Your task to perform on an android device: stop showing notifications on the lock screen Image 0: 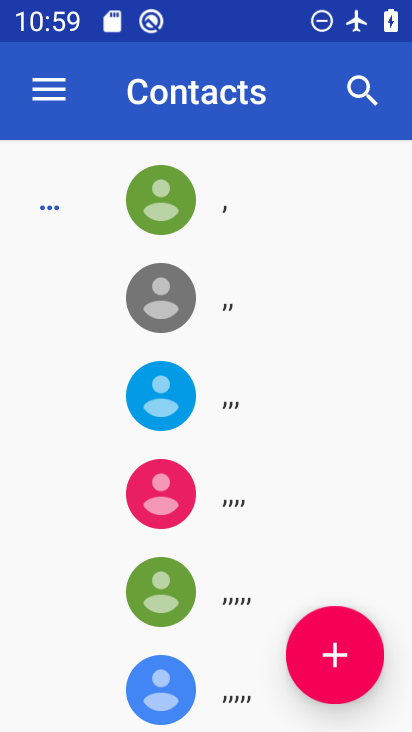
Step 0: press home button
Your task to perform on an android device: stop showing notifications on the lock screen Image 1: 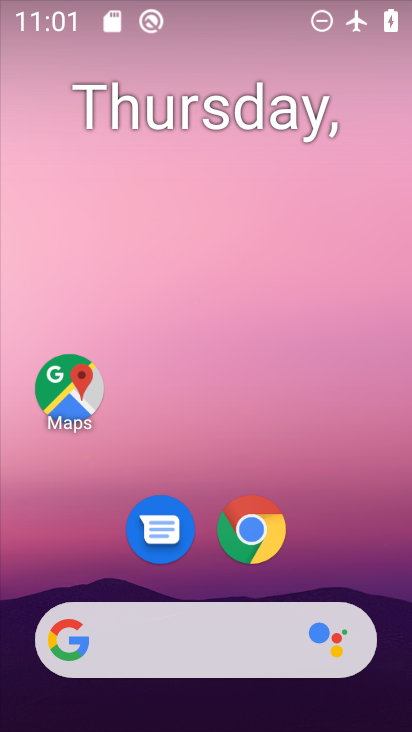
Step 1: drag from (90, 610) to (223, 30)
Your task to perform on an android device: stop showing notifications on the lock screen Image 2: 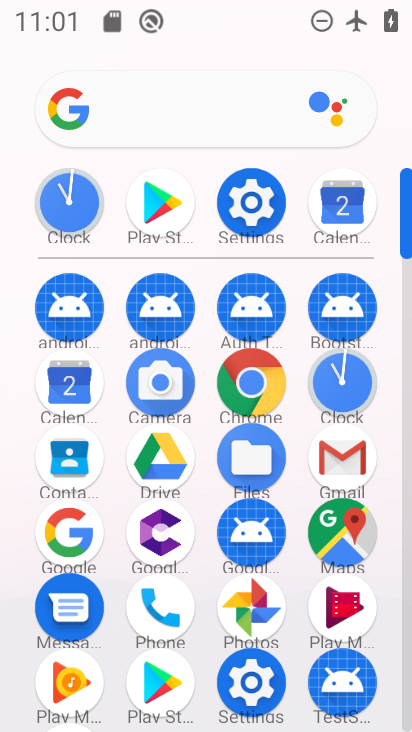
Step 2: click (240, 193)
Your task to perform on an android device: stop showing notifications on the lock screen Image 3: 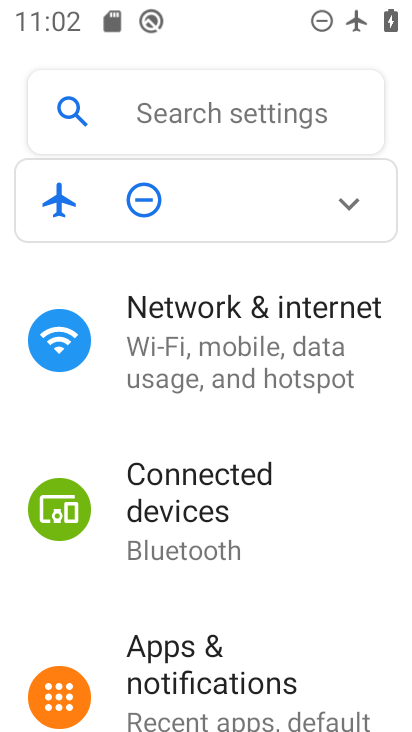
Step 3: click (235, 707)
Your task to perform on an android device: stop showing notifications on the lock screen Image 4: 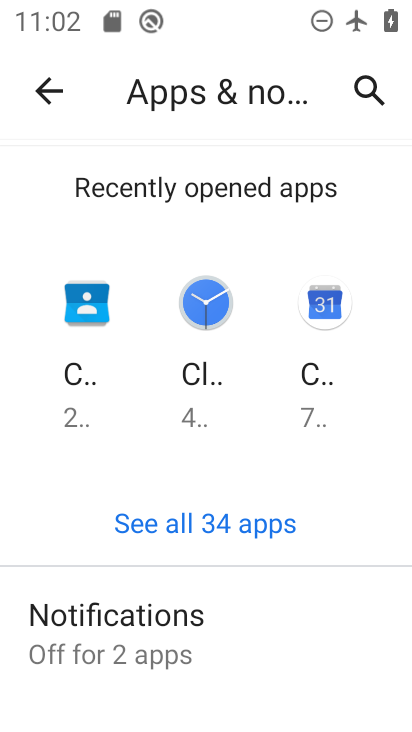
Step 4: click (176, 645)
Your task to perform on an android device: stop showing notifications on the lock screen Image 5: 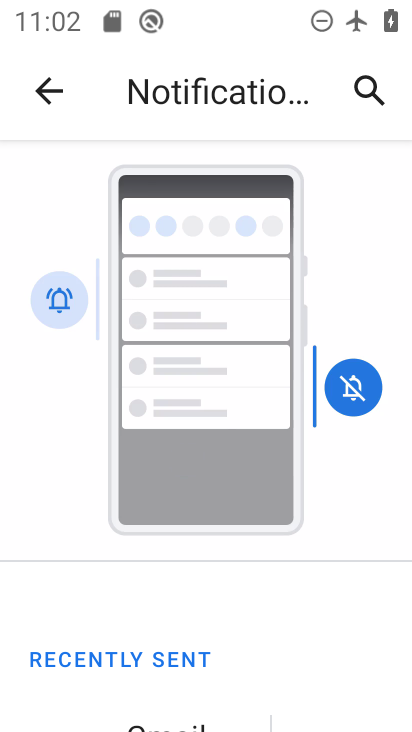
Step 5: drag from (226, 653) to (214, 170)
Your task to perform on an android device: stop showing notifications on the lock screen Image 6: 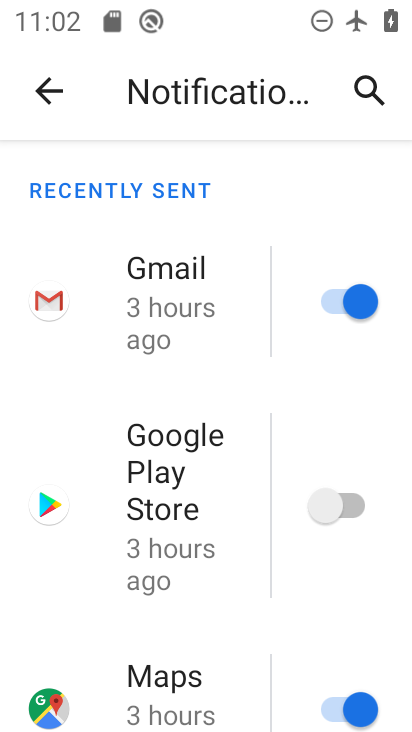
Step 6: drag from (245, 660) to (259, 232)
Your task to perform on an android device: stop showing notifications on the lock screen Image 7: 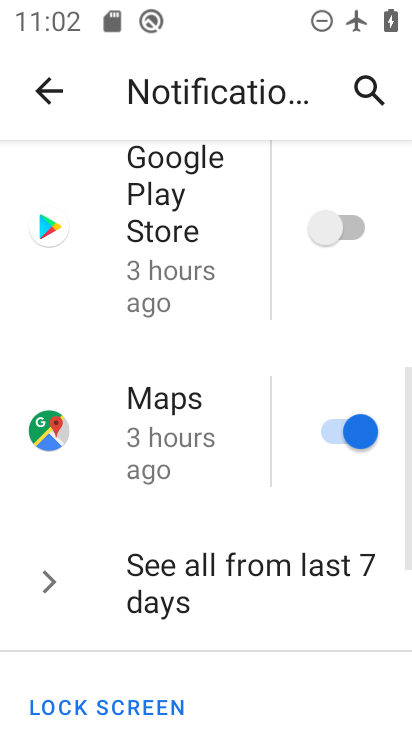
Step 7: drag from (214, 627) to (221, 187)
Your task to perform on an android device: stop showing notifications on the lock screen Image 8: 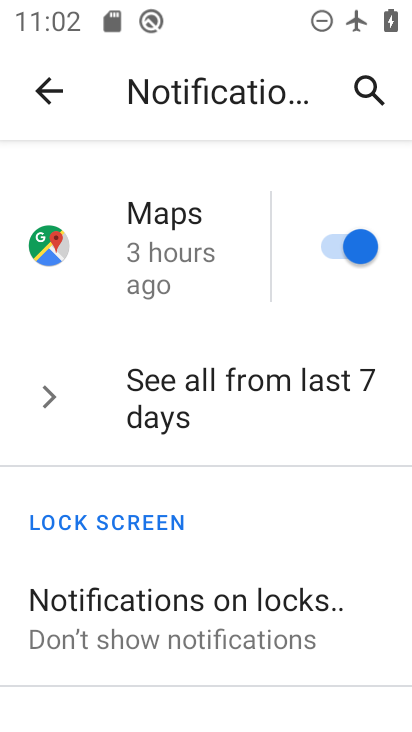
Step 8: click (189, 630)
Your task to perform on an android device: stop showing notifications on the lock screen Image 9: 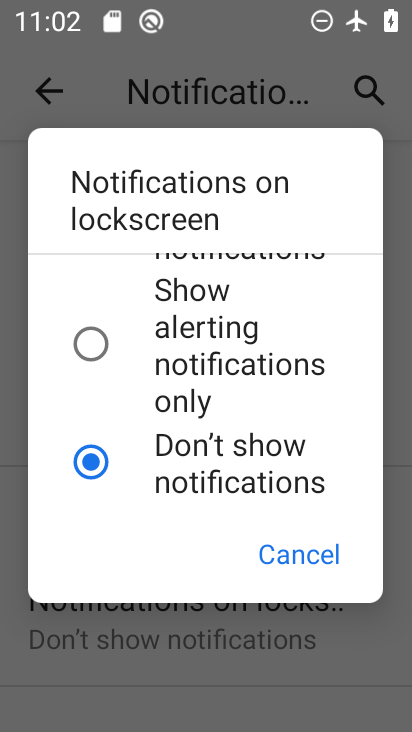
Step 9: task complete